Your task to perform on an android device: turn notification dots off Image 0: 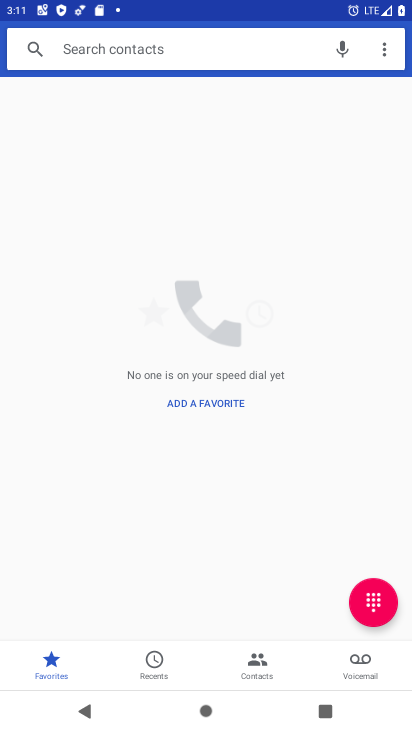
Step 0: press home button
Your task to perform on an android device: turn notification dots off Image 1: 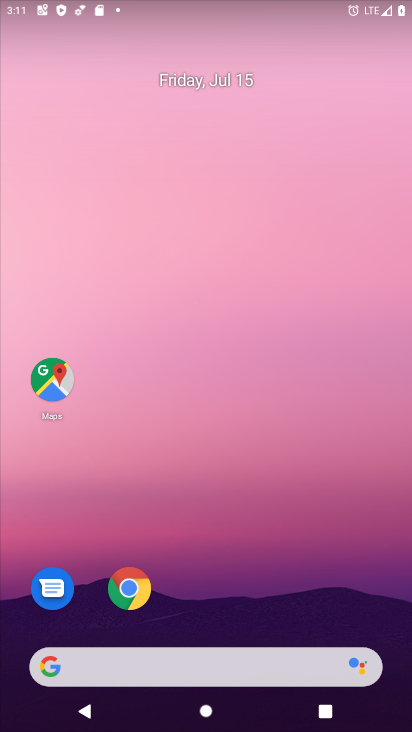
Step 1: drag from (168, 668) to (171, 121)
Your task to perform on an android device: turn notification dots off Image 2: 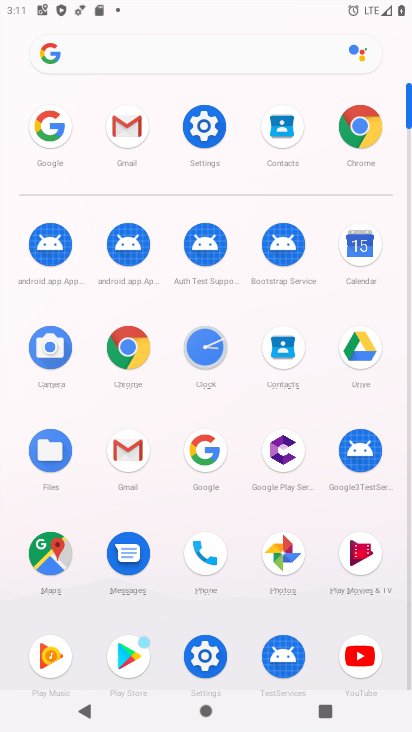
Step 2: click (202, 654)
Your task to perform on an android device: turn notification dots off Image 3: 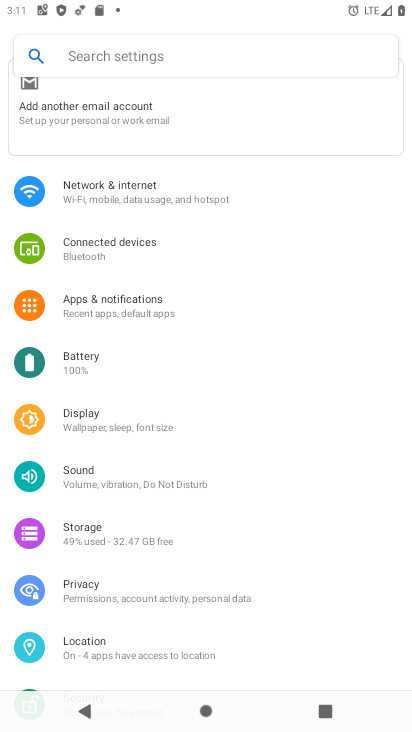
Step 3: click (90, 309)
Your task to perform on an android device: turn notification dots off Image 4: 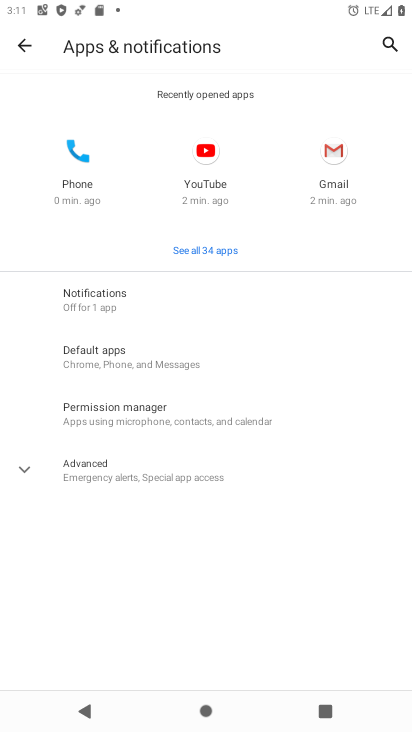
Step 4: click (90, 309)
Your task to perform on an android device: turn notification dots off Image 5: 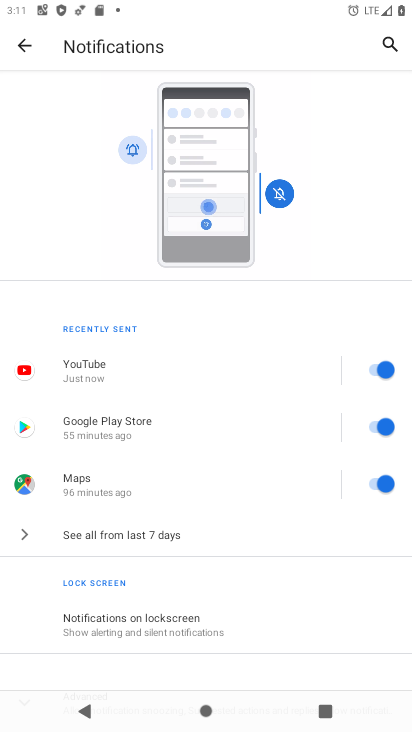
Step 5: drag from (130, 567) to (185, 413)
Your task to perform on an android device: turn notification dots off Image 6: 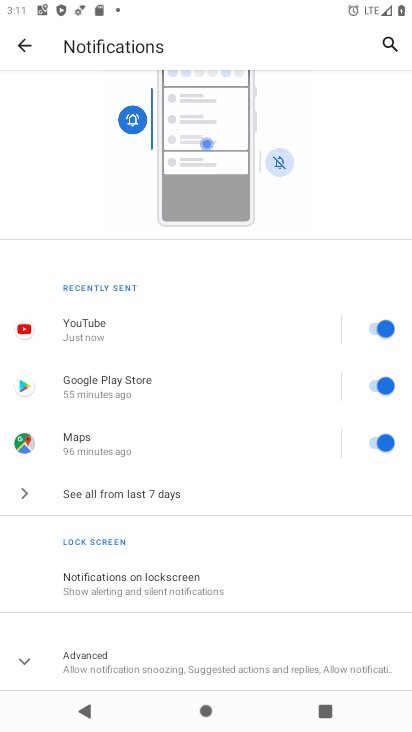
Step 6: click (155, 674)
Your task to perform on an android device: turn notification dots off Image 7: 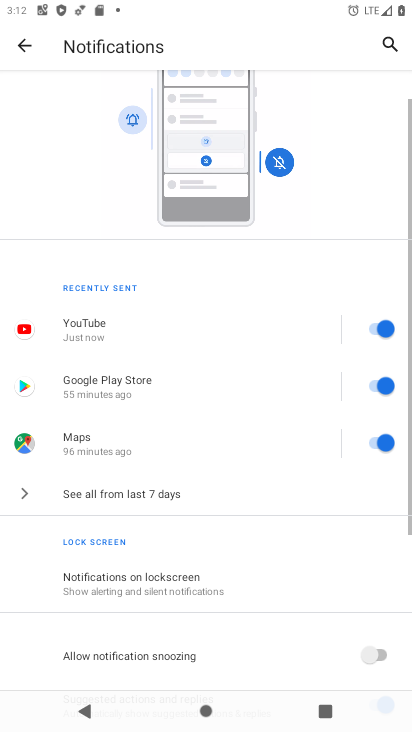
Step 7: drag from (193, 640) to (282, 479)
Your task to perform on an android device: turn notification dots off Image 8: 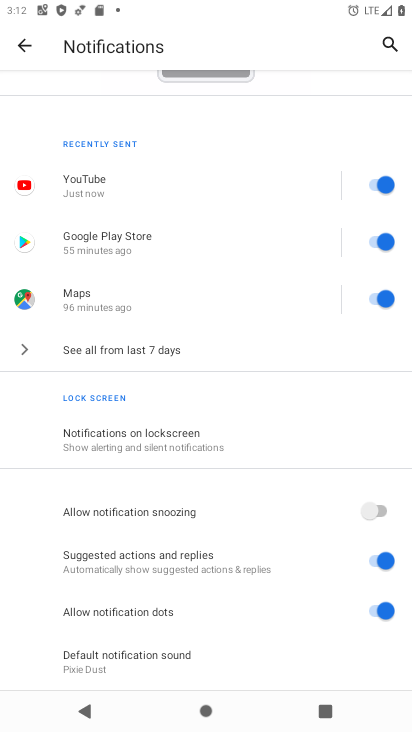
Step 8: click (381, 611)
Your task to perform on an android device: turn notification dots off Image 9: 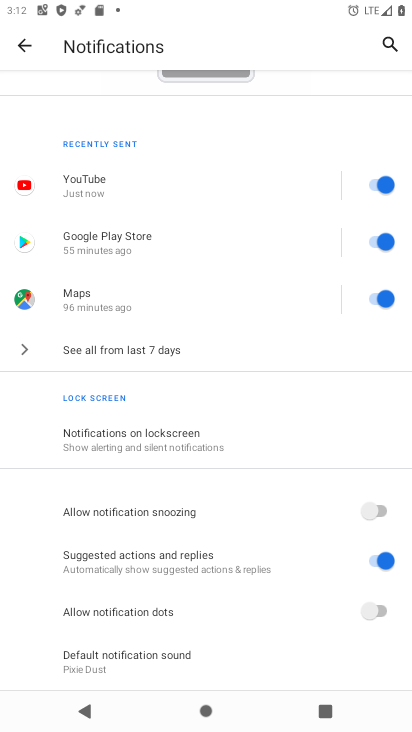
Step 9: task complete